Your task to perform on an android device: Open Amazon Image 0: 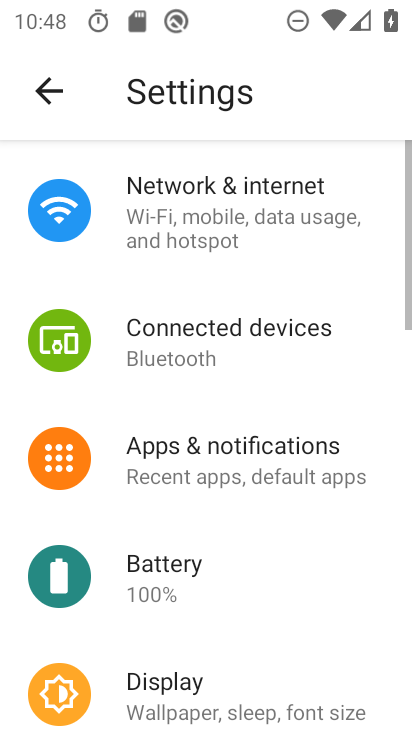
Step 0: press home button
Your task to perform on an android device: Open Amazon Image 1: 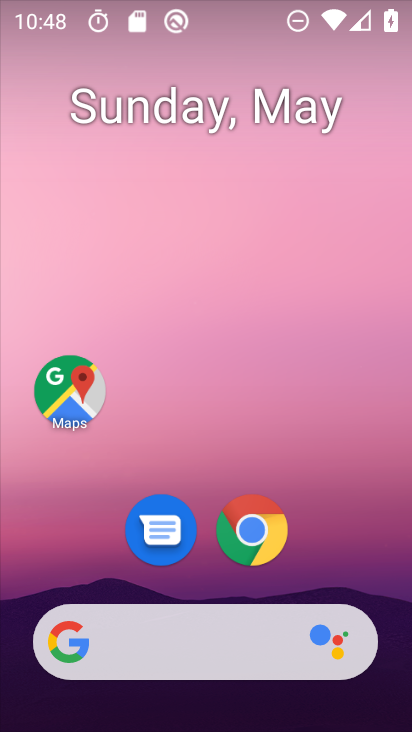
Step 1: drag from (340, 667) to (259, 233)
Your task to perform on an android device: Open Amazon Image 2: 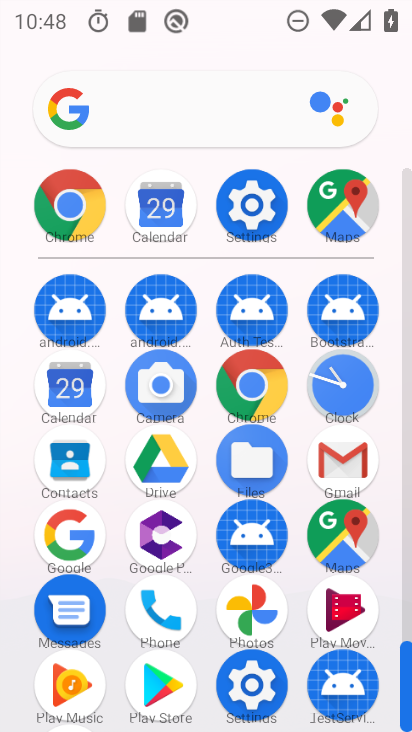
Step 2: click (79, 197)
Your task to perform on an android device: Open Amazon Image 3: 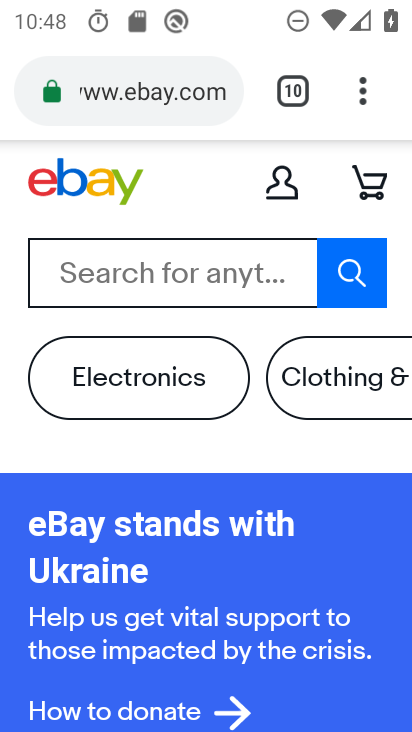
Step 3: click (344, 114)
Your task to perform on an android device: Open Amazon Image 4: 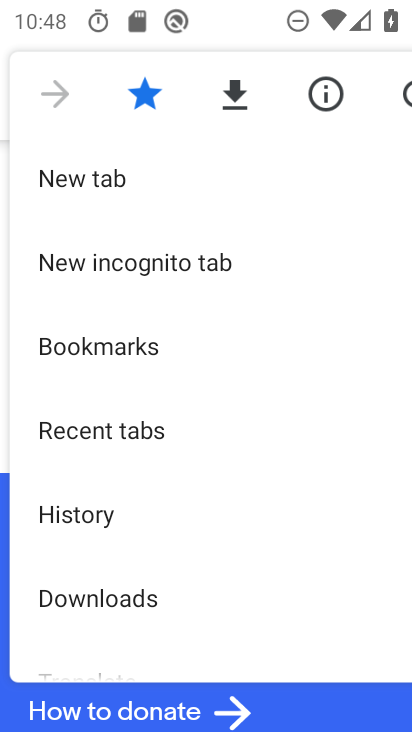
Step 4: click (104, 185)
Your task to perform on an android device: Open Amazon Image 5: 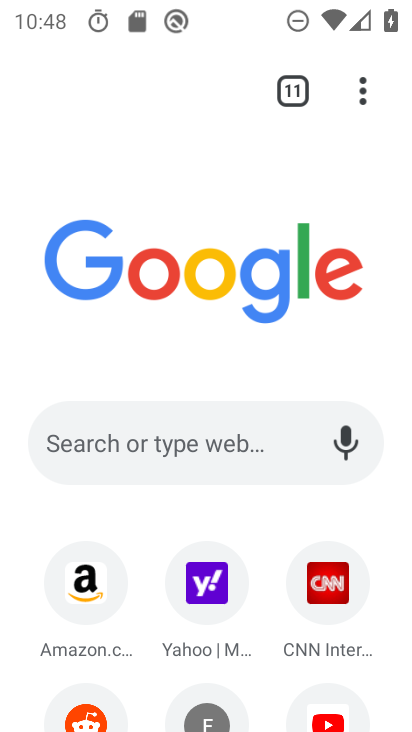
Step 5: click (98, 601)
Your task to perform on an android device: Open Amazon Image 6: 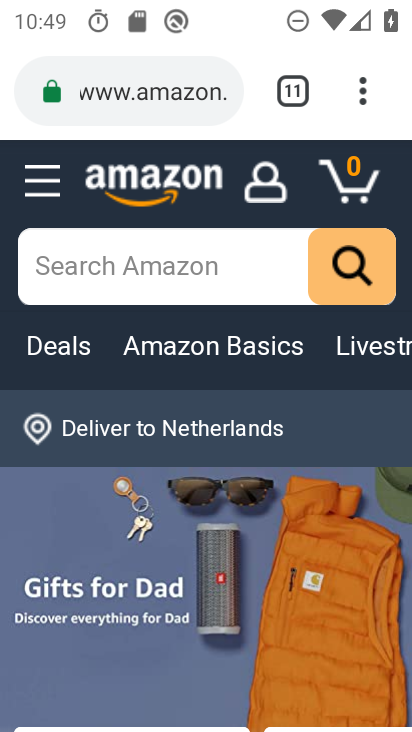
Step 6: task complete